Your task to perform on an android device: Open Amazon Image 0: 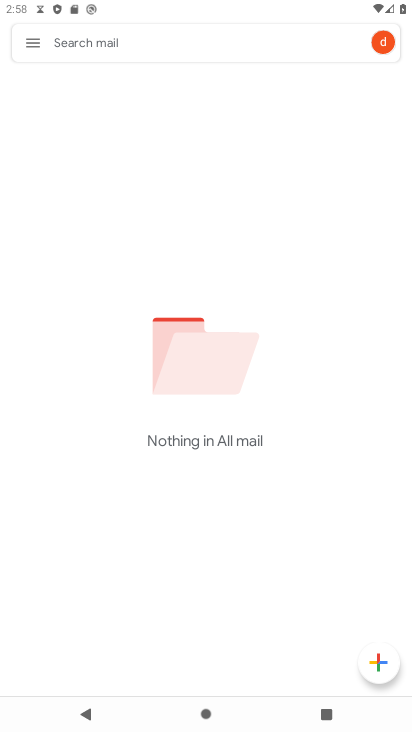
Step 0: press home button
Your task to perform on an android device: Open Amazon Image 1: 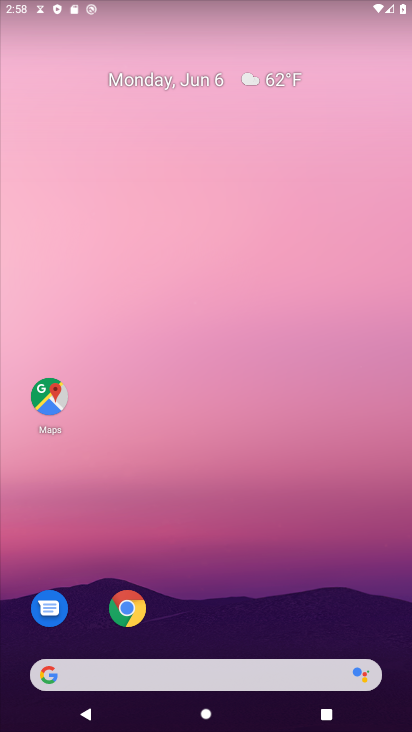
Step 1: click (123, 605)
Your task to perform on an android device: Open Amazon Image 2: 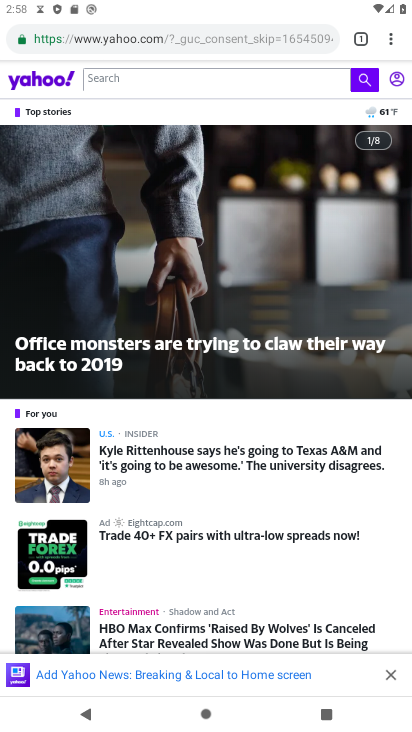
Step 2: click (129, 37)
Your task to perform on an android device: Open Amazon Image 3: 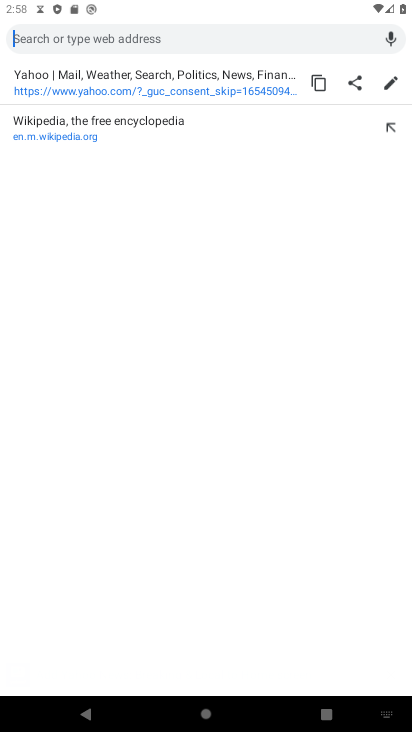
Step 3: type "amazon"
Your task to perform on an android device: Open Amazon Image 4: 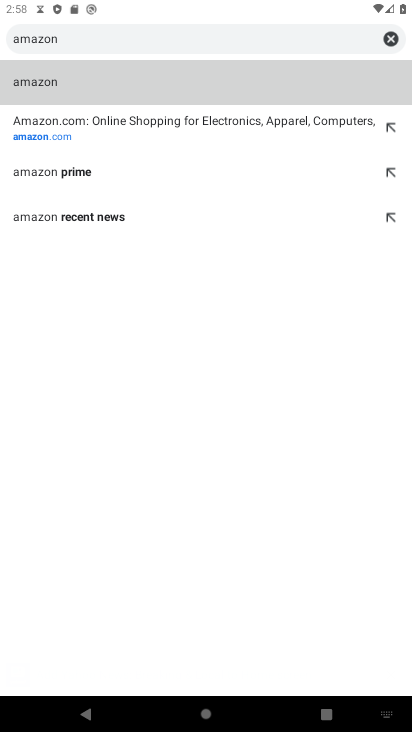
Step 4: click (20, 80)
Your task to perform on an android device: Open Amazon Image 5: 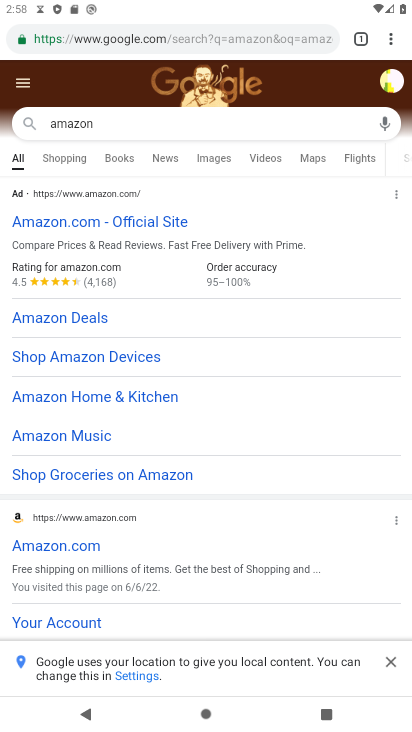
Step 5: click (82, 216)
Your task to perform on an android device: Open Amazon Image 6: 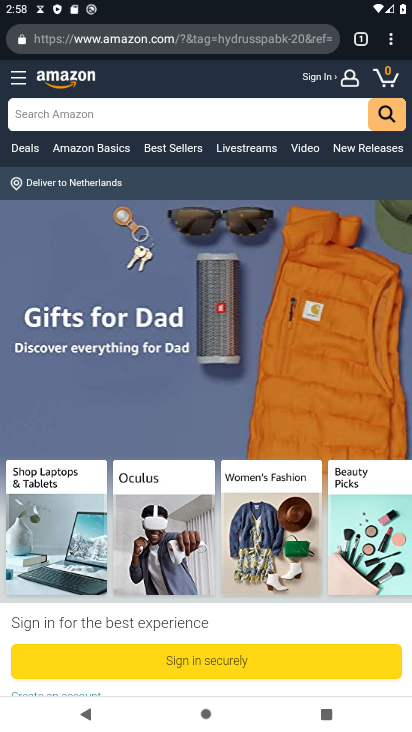
Step 6: task complete